Your task to perform on an android device: Open my contact list Image 0: 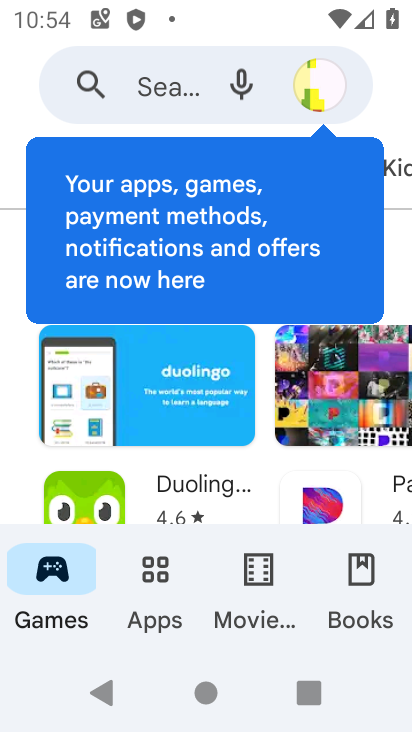
Step 0: press home button
Your task to perform on an android device: Open my contact list Image 1: 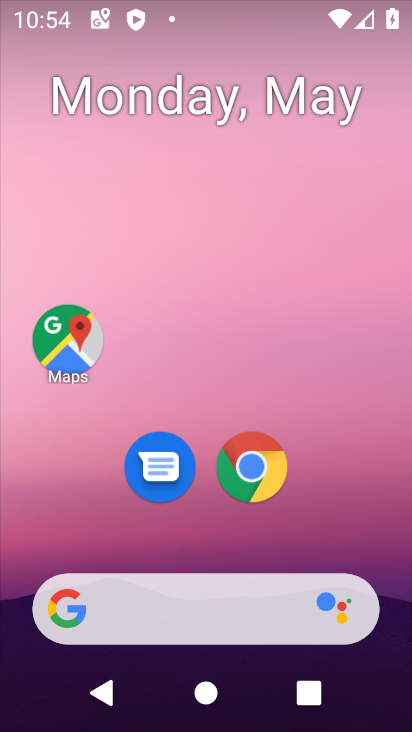
Step 1: drag from (400, 623) to (337, 211)
Your task to perform on an android device: Open my contact list Image 2: 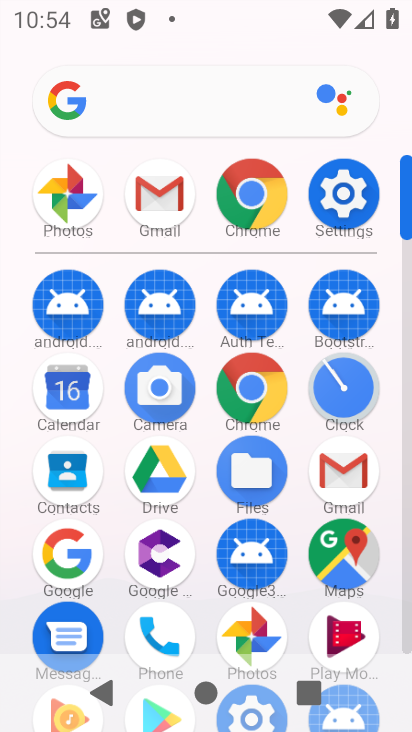
Step 2: click (408, 594)
Your task to perform on an android device: Open my contact list Image 3: 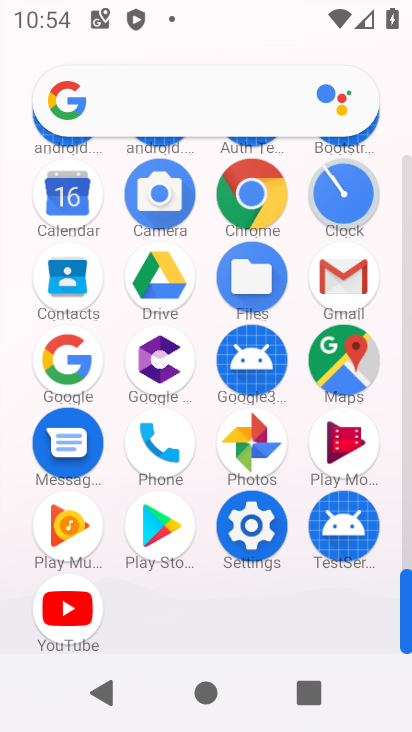
Step 3: click (72, 274)
Your task to perform on an android device: Open my contact list Image 4: 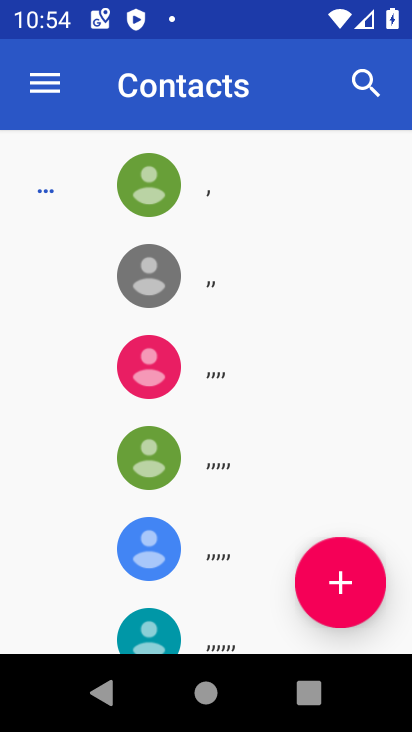
Step 4: task complete